Your task to perform on an android device: add a label to a message in the gmail app Image 0: 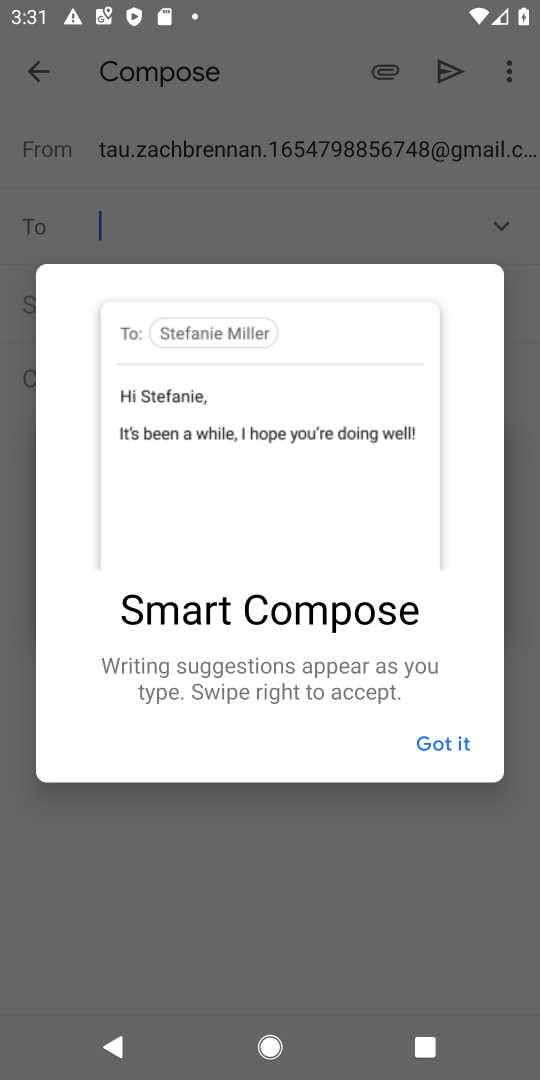
Step 0: press back button
Your task to perform on an android device: add a label to a message in the gmail app Image 1: 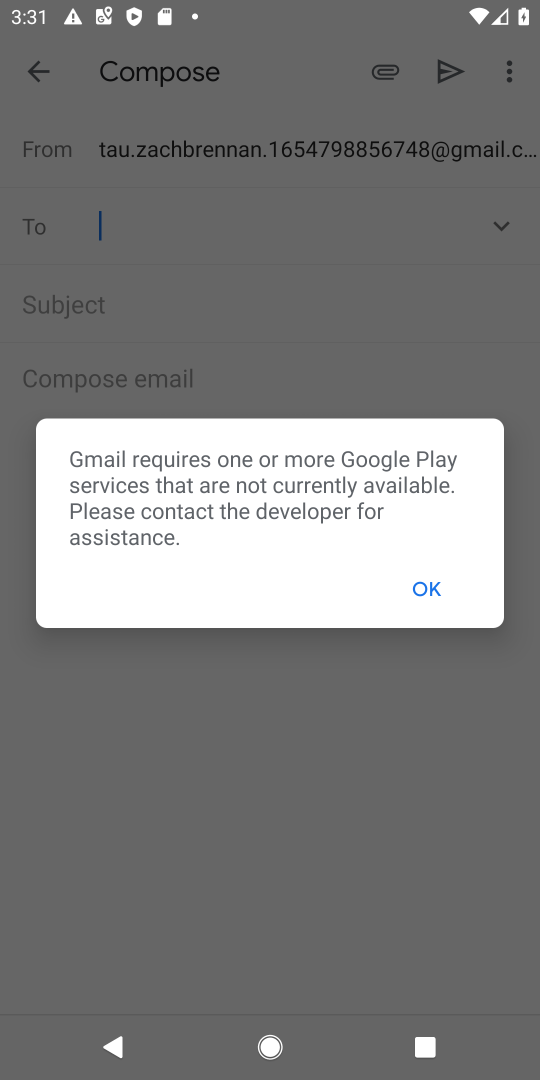
Step 1: press home button
Your task to perform on an android device: add a label to a message in the gmail app Image 2: 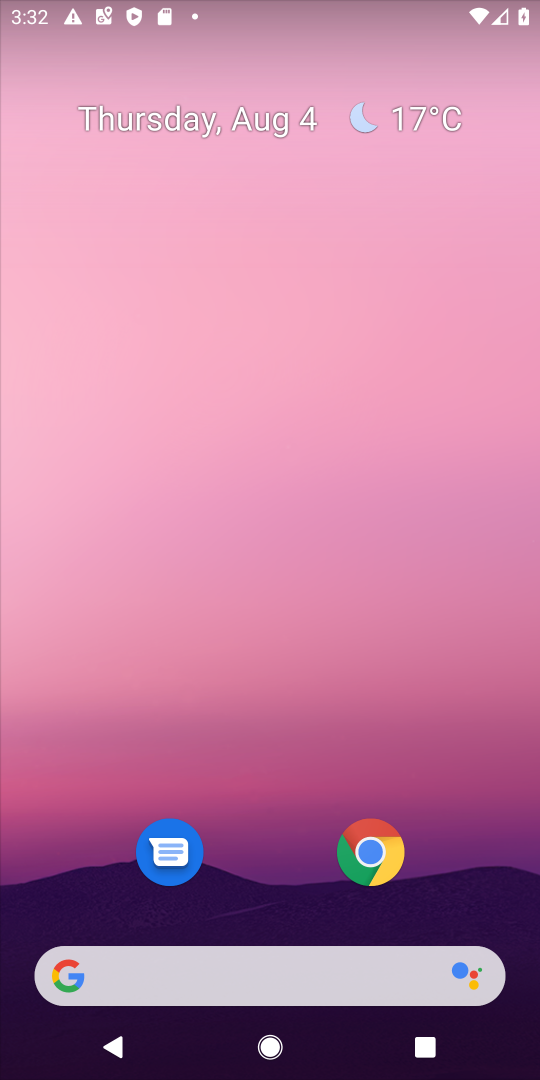
Step 2: drag from (256, 885) to (321, 31)
Your task to perform on an android device: add a label to a message in the gmail app Image 3: 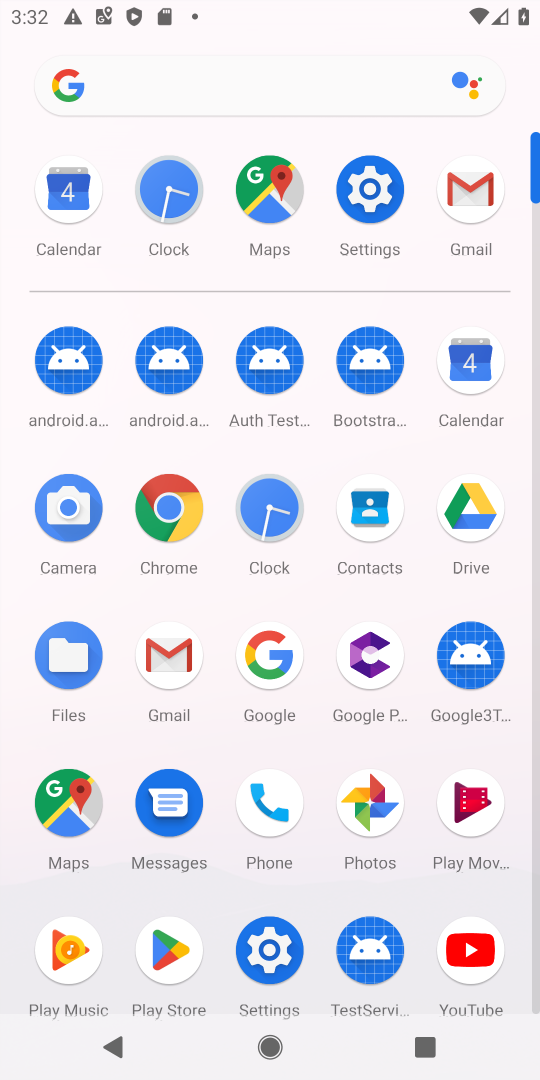
Step 3: click (469, 195)
Your task to perform on an android device: add a label to a message in the gmail app Image 4: 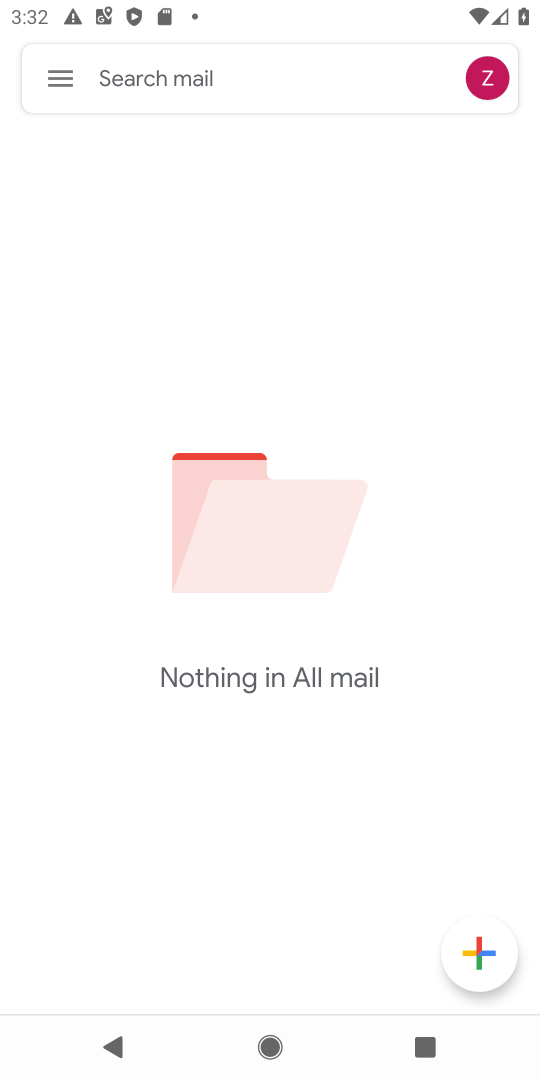
Step 4: click (46, 77)
Your task to perform on an android device: add a label to a message in the gmail app Image 5: 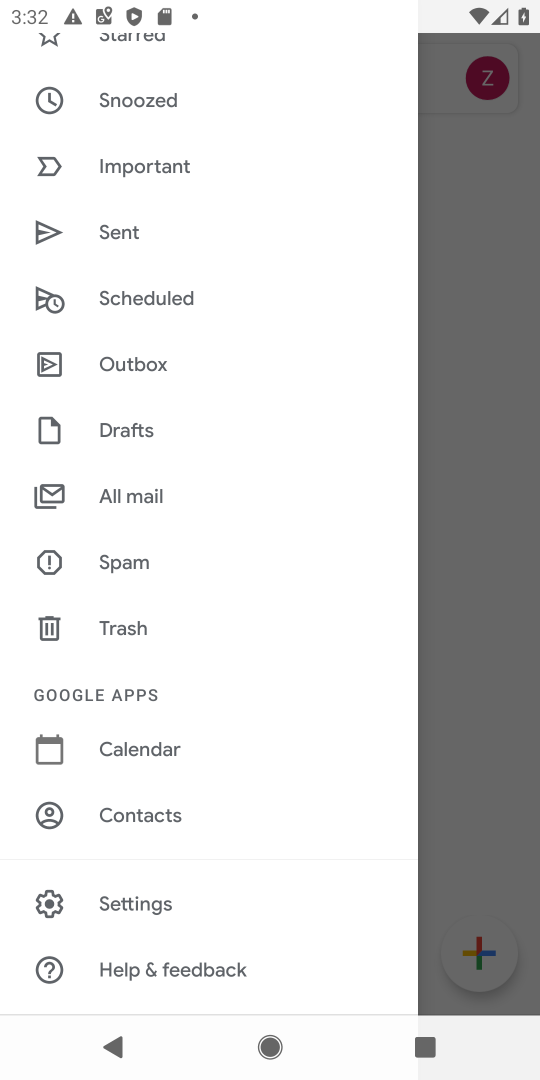
Step 5: click (137, 499)
Your task to perform on an android device: add a label to a message in the gmail app Image 6: 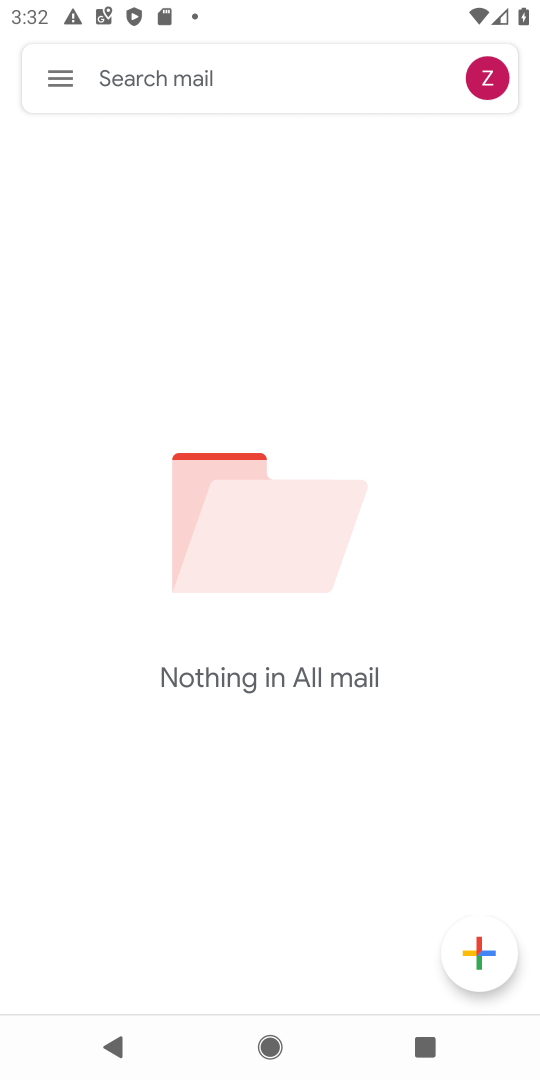
Step 6: task complete